Your task to perform on an android device: turn on showing notifications on the lock screen Image 0: 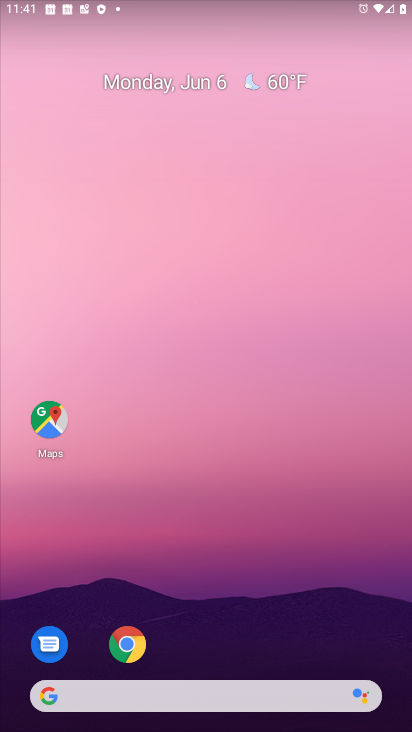
Step 0: drag from (132, 726) to (129, 81)
Your task to perform on an android device: turn on showing notifications on the lock screen Image 1: 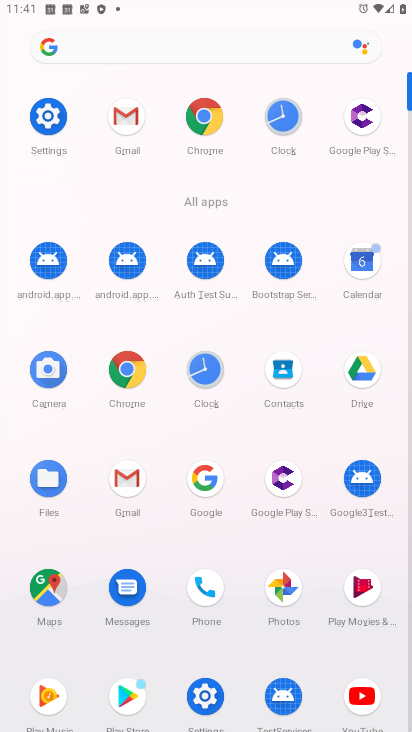
Step 1: click (201, 694)
Your task to perform on an android device: turn on showing notifications on the lock screen Image 2: 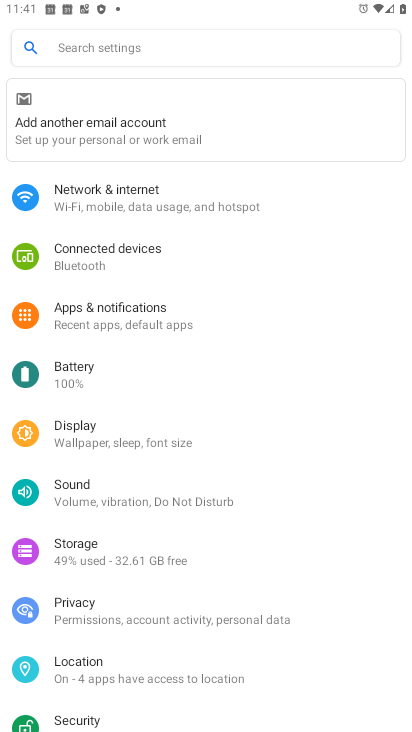
Step 2: click (132, 323)
Your task to perform on an android device: turn on showing notifications on the lock screen Image 3: 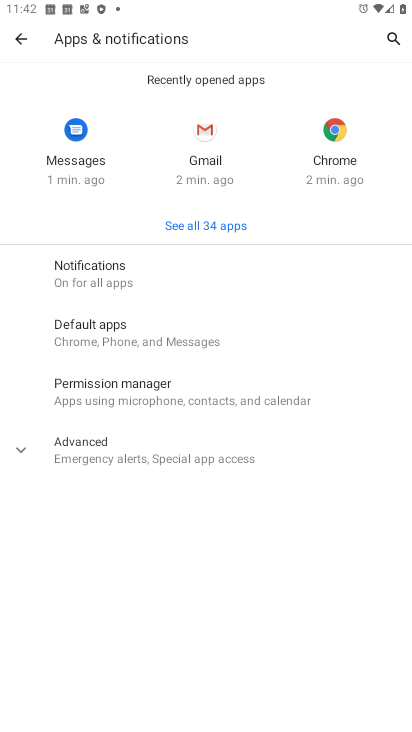
Step 3: click (108, 283)
Your task to perform on an android device: turn on showing notifications on the lock screen Image 4: 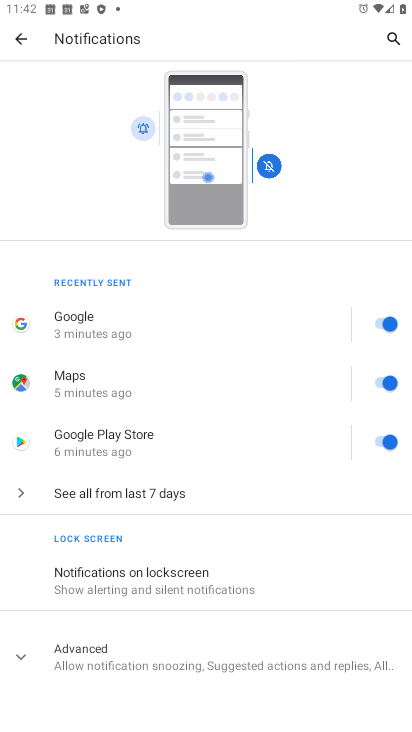
Step 4: click (180, 590)
Your task to perform on an android device: turn on showing notifications on the lock screen Image 5: 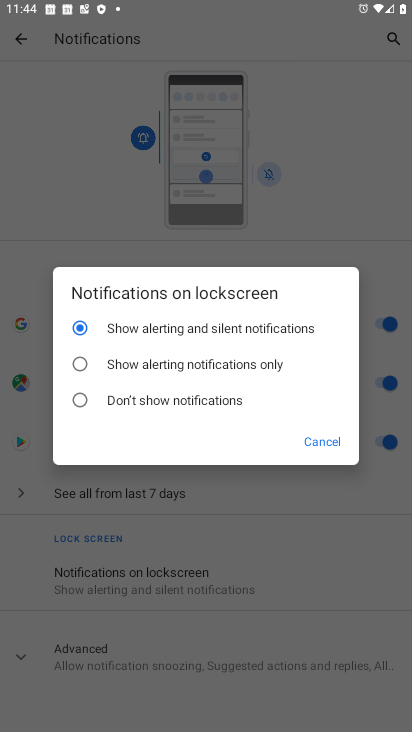
Step 5: task complete